Your task to perform on an android device: Open Youtube and go to "Your channel" Image 0: 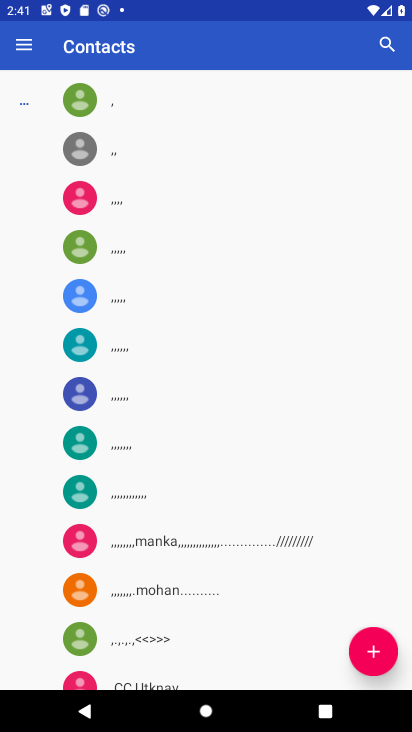
Step 0: click (368, 130)
Your task to perform on an android device: Open Youtube and go to "Your channel" Image 1: 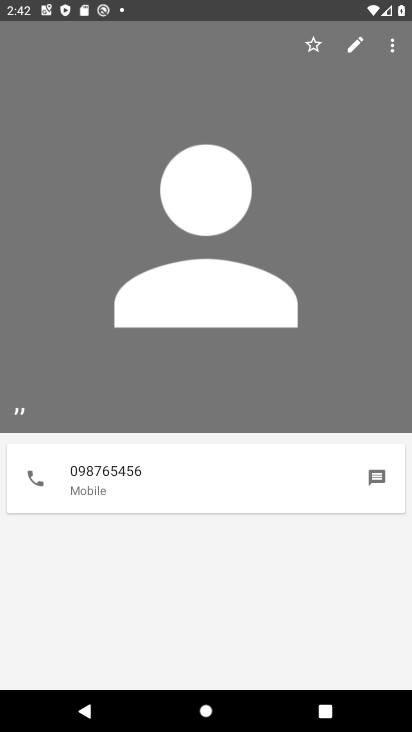
Step 1: press home button
Your task to perform on an android device: Open Youtube and go to "Your channel" Image 2: 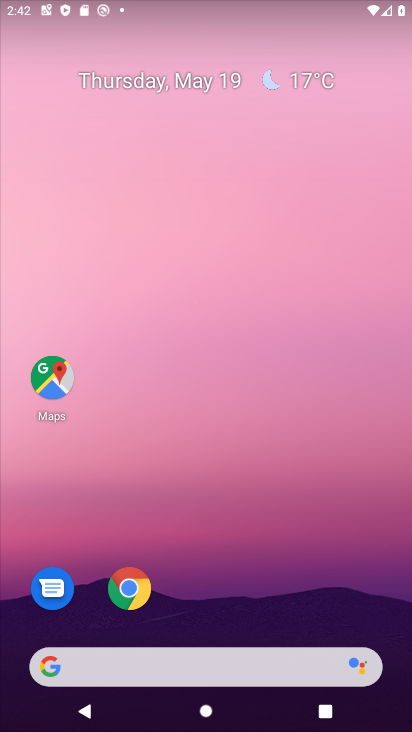
Step 2: drag from (266, 599) to (255, 217)
Your task to perform on an android device: Open Youtube and go to "Your channel" Image 3: 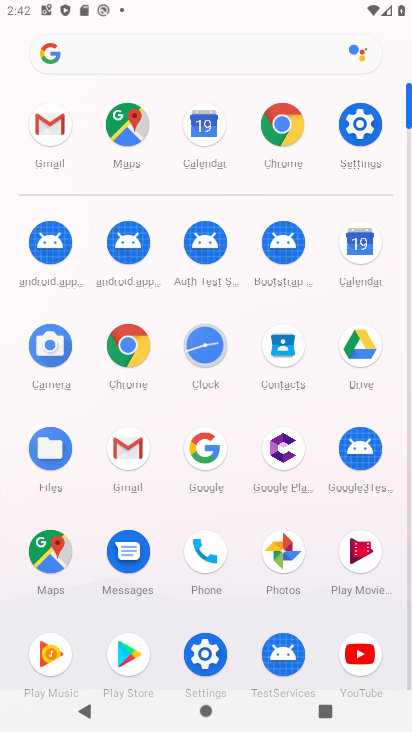
Step 3: click (360, 653)
Your task to perform on an android device: Open Youtube and go to "Your channel" Image 4: 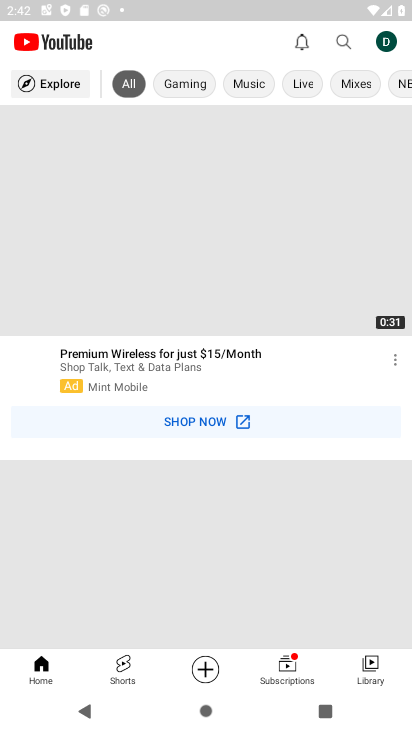
Step 4: click (384, 38)
Your task to perform on an android device: Open Youtube and go to "Your channel" Image 5: 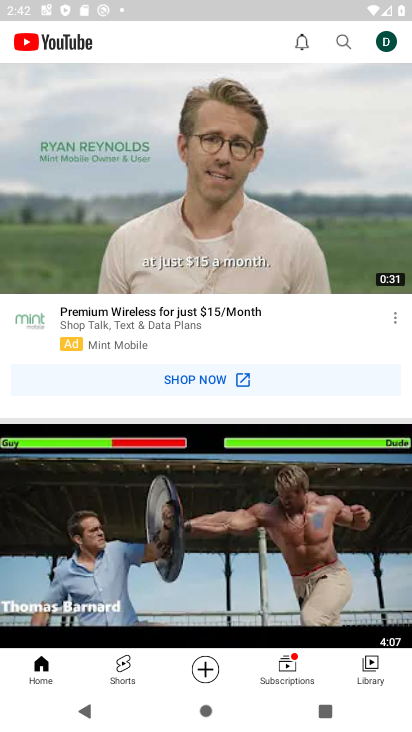
Step 5: click (384, 39)
Your task to perform on an android device: Open Youtube and go to "Your channel" Image 6: 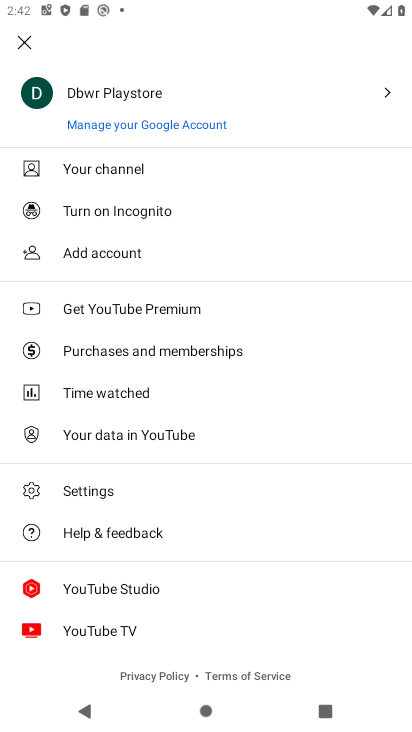
Step 6: click (113, 163)
Your task to perform on an android device: Open Youtube and go to "Your channel" Image 7: 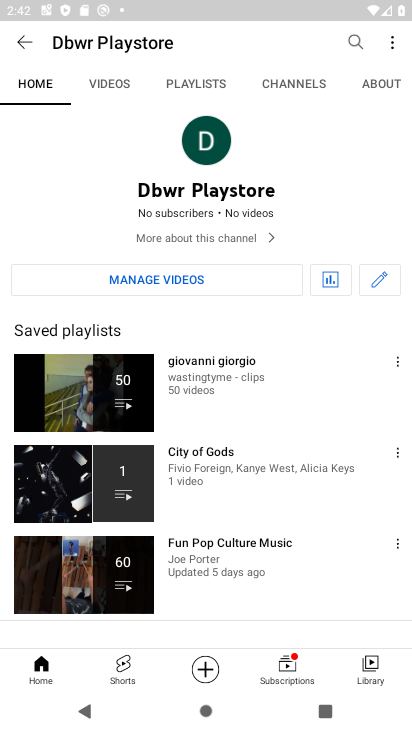
Step 7: task complete